Your task to perform on an android device: check the backup settings in the google photos Image 0: 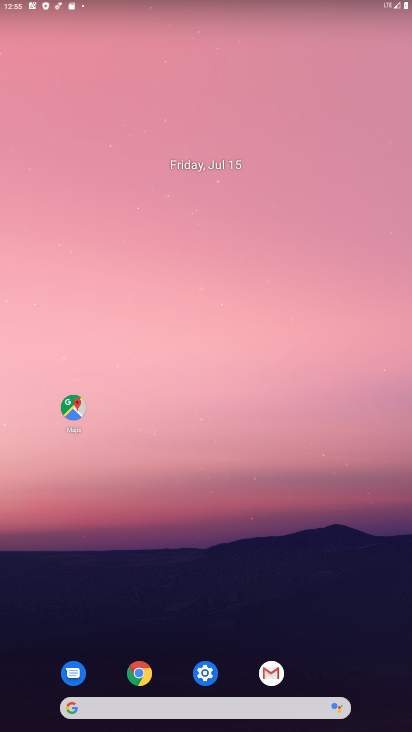
Step 0: press home button
Your task to perform on an android device: check the backup settings in the google photos Image 1: 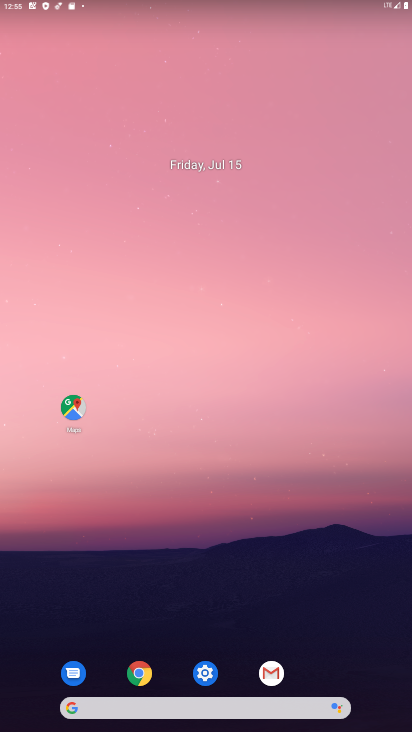
Step 1: drag from (261, 674) to (403, 68)
Your task to perform on an android device: check the backup settings in the google photos Image 2: 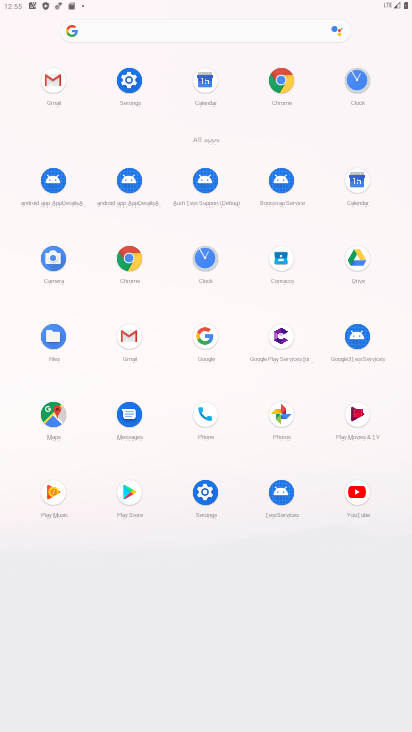
Step 2: click (282, 407)
Your task to perform on an android device: check the backup settings in the google photos Image 3: 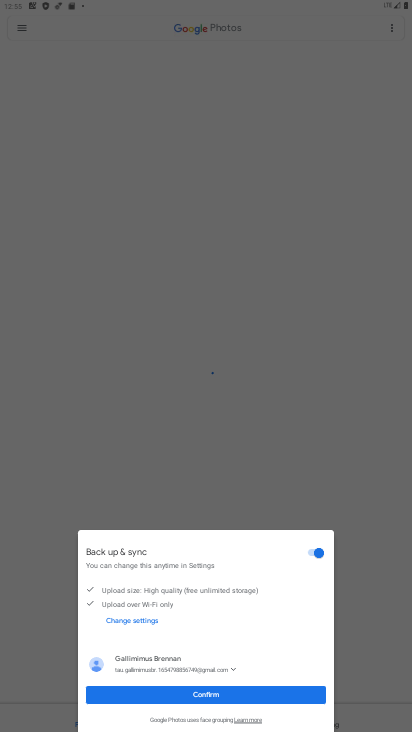
Step 3: click (210, 694)
Your task to perform on an android device: check the backup settings in the google photos Image 4: 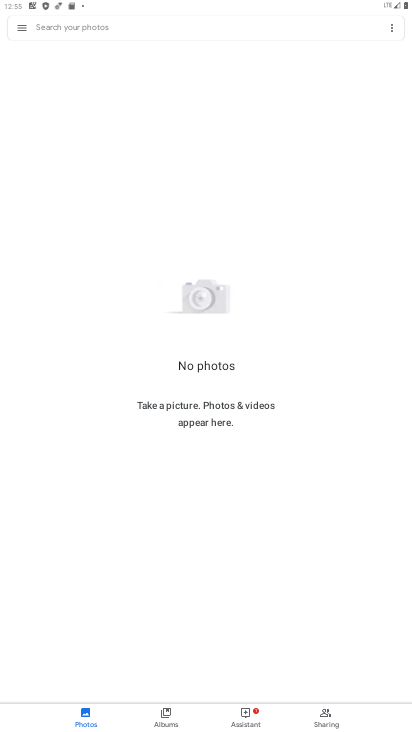
Step 4: click (18, 34)
Your task to perform on an android device: check the backup settings in the google photos Image 5: 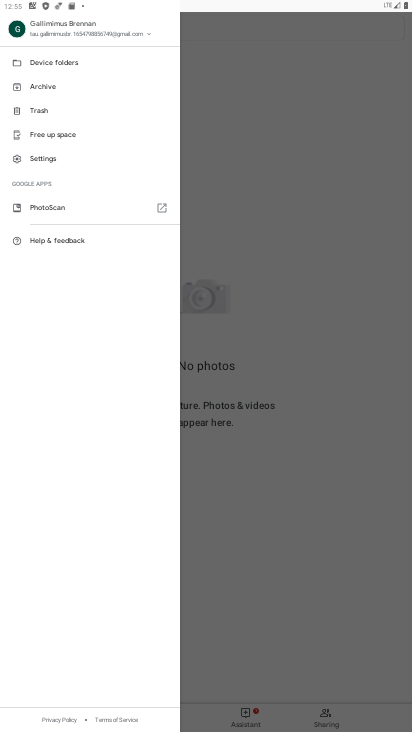
Step 5: click (56, 159)
Your task to perform on an android device: check the backup settings in the google photos Image 6: 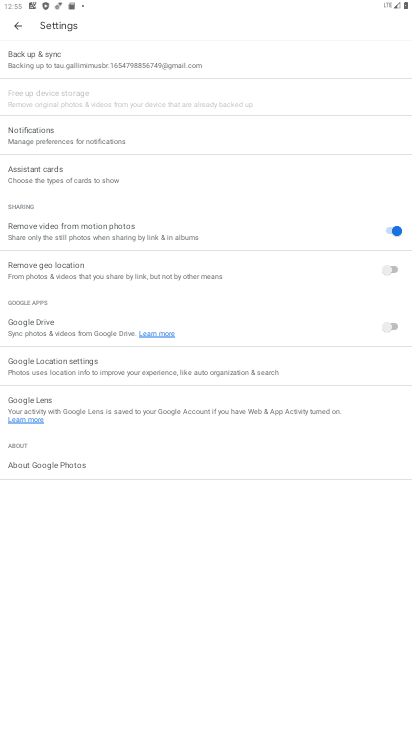
Step 6: click (42, 69)
Your task to perform on an android device: check the backup settings in the google photos Image 7: 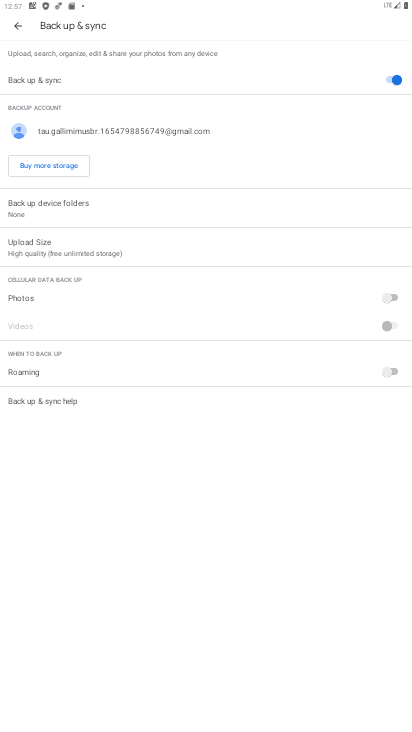
Step 7: task complete